Your task to perform on an android device: empty trash in google photos Image 0: 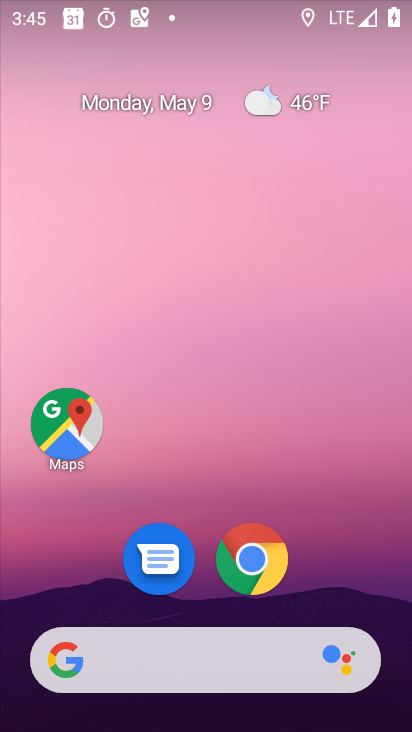
Step 0: drag from (264, 71) to (258, 31)
Your task to perform on an android device: empty trash in google photos Image 1: 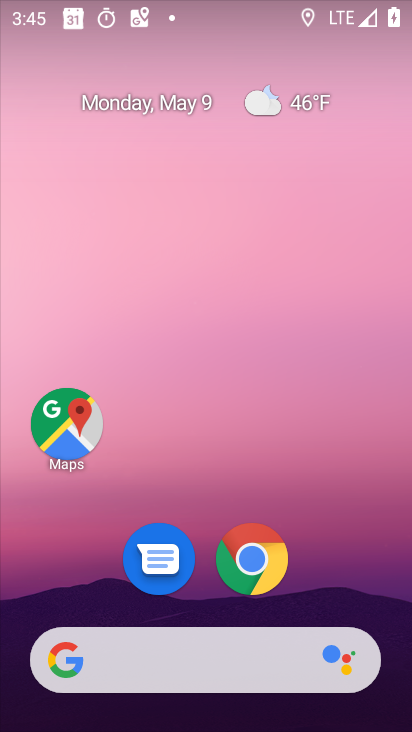
Step 1: drag from (329, 517) to (289, 5)
Your task to perform on an android device: empty trash in google photos Image 2: 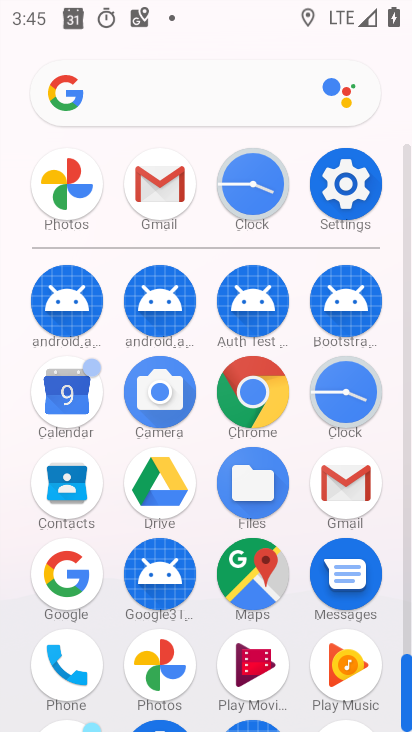
Step 2: click (158, 661)
Your task to perform on an android device: empty trash in google photos Image 3: 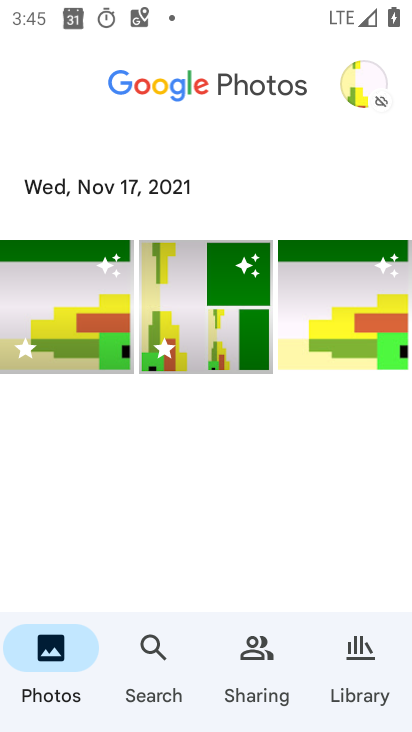
Step 3: click (371, 650)
Your task to perform on an android device: empty trash in google photos Image 4: 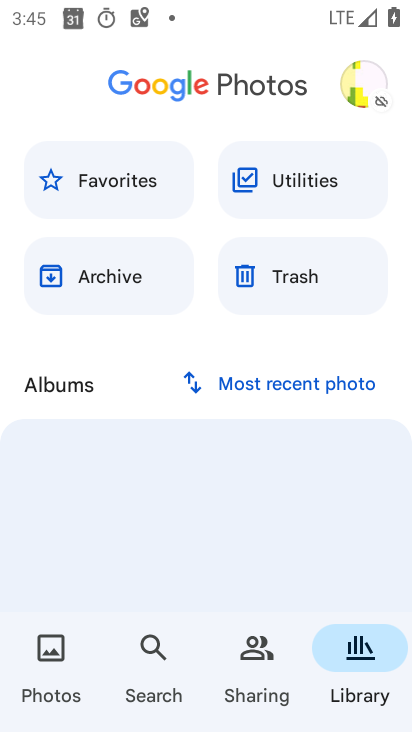
Step 4: click (278, 279)
Your task to perform on an android device: empty trash in google photos Image 5: 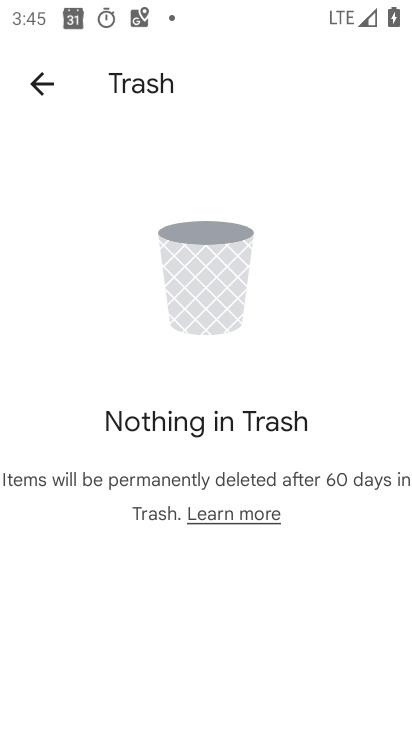
Step 5: task complete